Your task to perform on an android device: turn on location history Image 0: 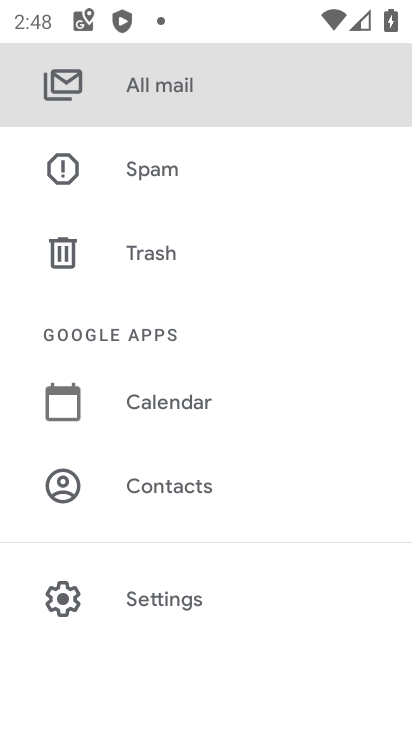
Step 0: press home button
Your task to perform on an android device: turn on location history Image 1: 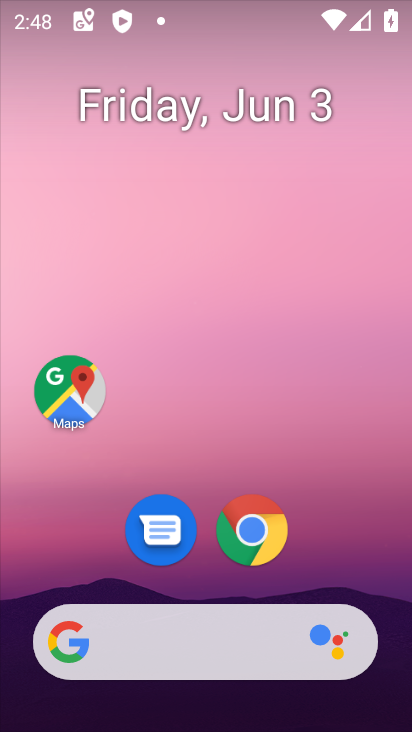
Step 1: click (71, 395)
Your task to perform on an android device: turn on location history Image 2: 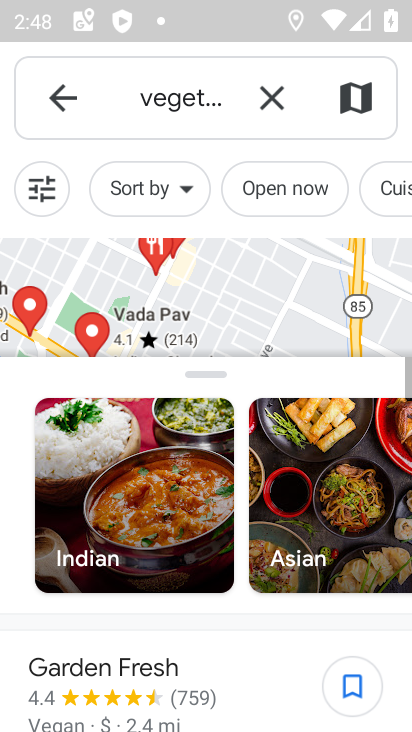
Step 2: click (268, 88)
Your task to perform on an android device: turn on location history Image 3: 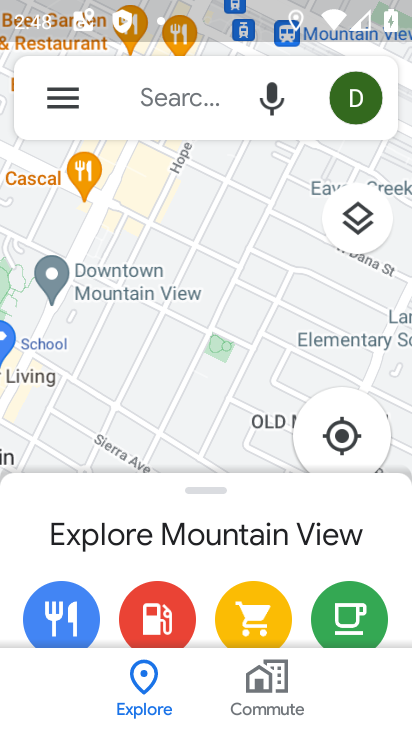
Step 3: click (63, 96)
Your task to perform on an android device: turn on location history Image 4: 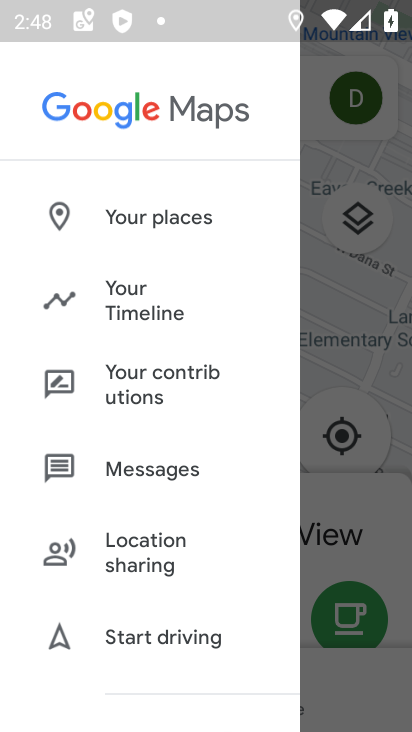
Step 4: click (126, 303)
Your task to perform on an android device: turn on location history Image 5: 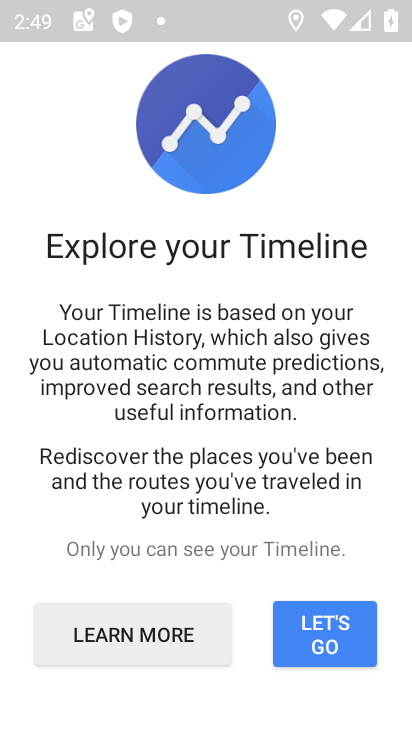
Step 5: drag from (288, 490) to (257, 207)
Your task to perform on an android device: turn on location history Image 6: 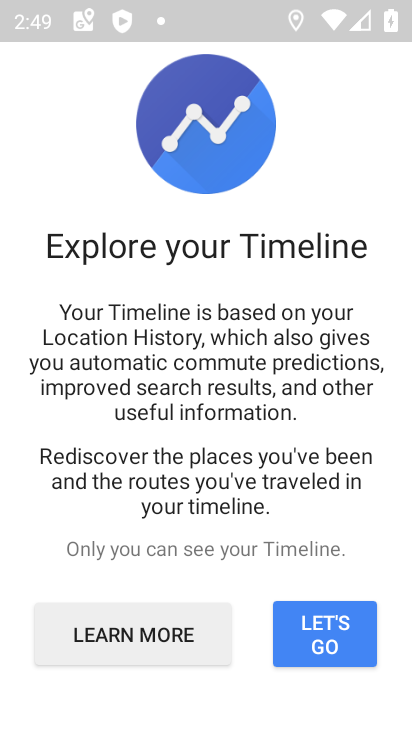
Step 6: click (302, 638)
Your task to perform on an android device: turn on location history Image 7: 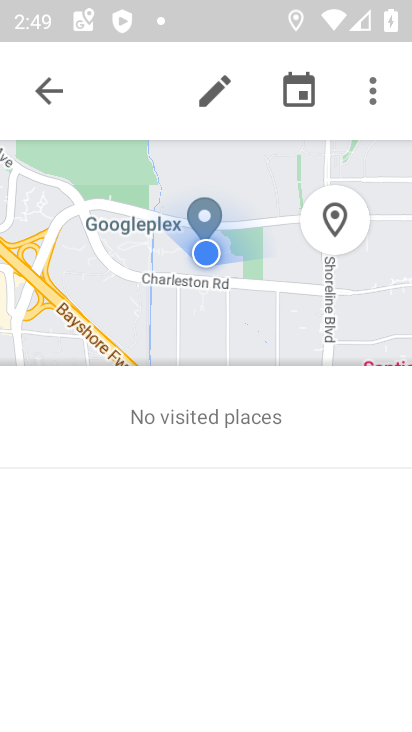
Step 7: click (373, 94)
Your task to perform on an android device: turn on location history Image 8: 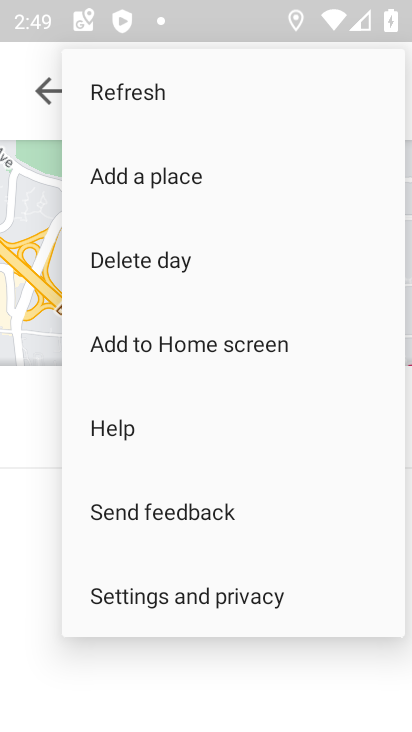
Step 8: click (202, 589)
Your task to perform on an android device: turn on location history Image 9: 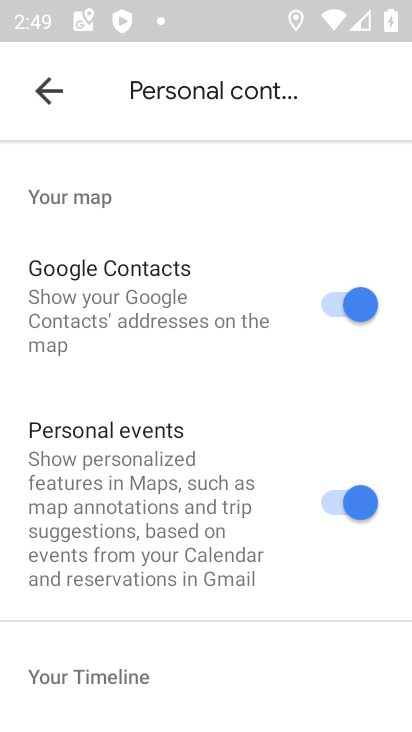
Step 9: drag from (231, 612) to (198, 275)
Your task to perform on an android device: turn on location history Image 10: 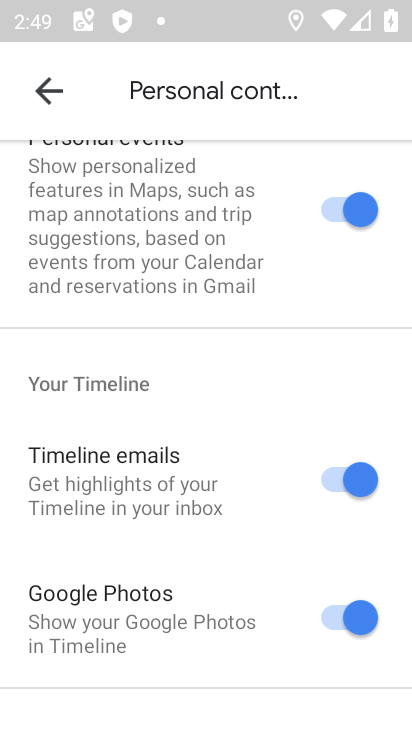
Step 10: drag from (204, 540) to (189, 339)
Your task to perform on an android device: turn on location history Image 11: 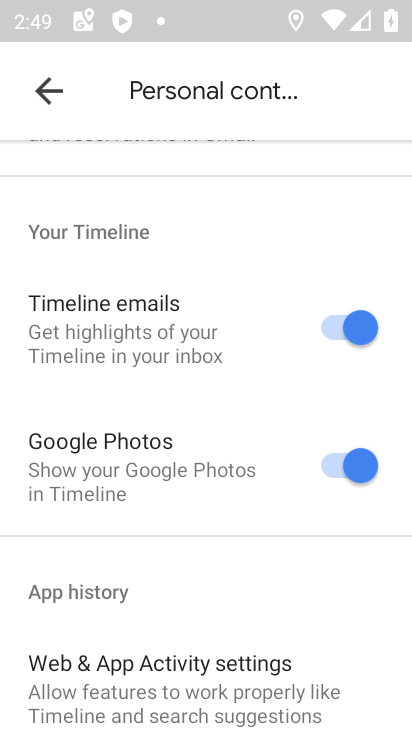
Step 11: drag from (234, 572) to (190, 279)
Your task to perform on an android device: turn on location history Image 12: 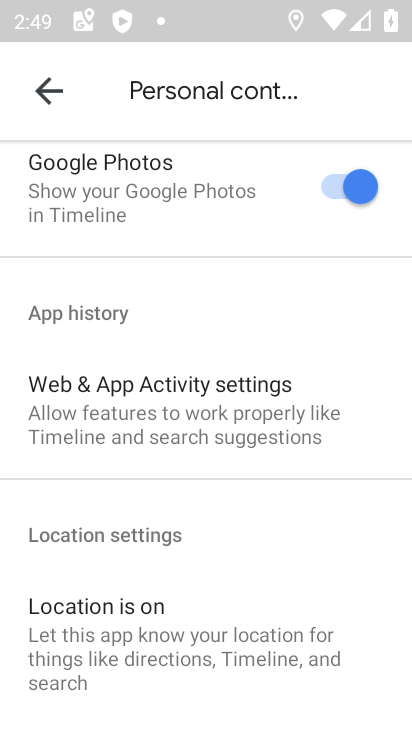
Step 12: drag from (220, 541) to (216, 272)
Your task to perform on an android device: turn on location history Image 13: 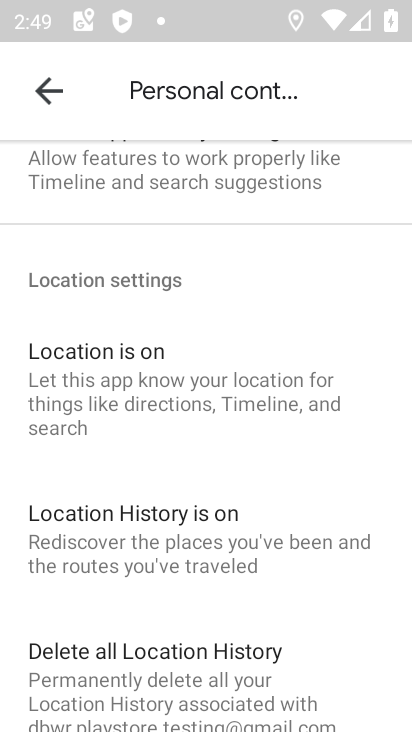
Step 13: click (179, 517)
Your task to perform on an android device: turn on location history Image 14: 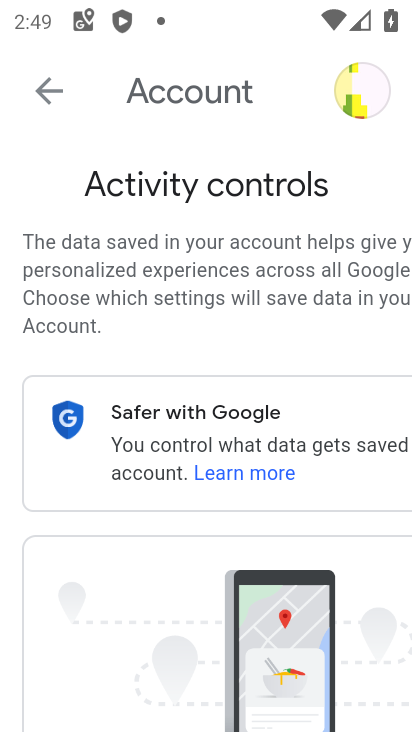
Step 14: task complete